Your task to perform on an android device: Open the map Image 0: 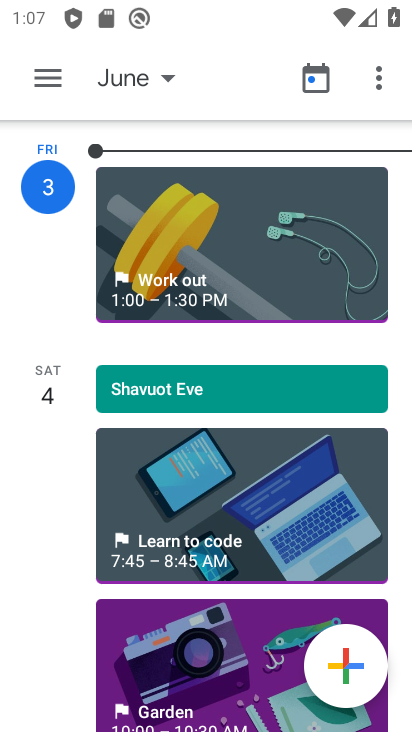
Step 0: press home button
Your task to perform on an android device: Open the map Image 1: 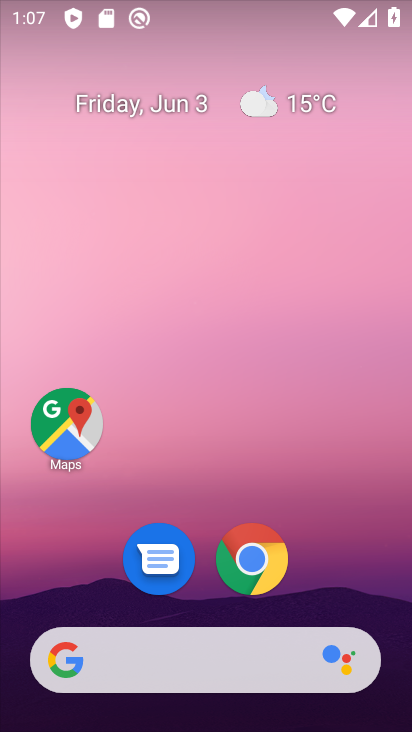
Step 1: click (55, 427)
Your task to perform on an android device: Open the map Image 2: 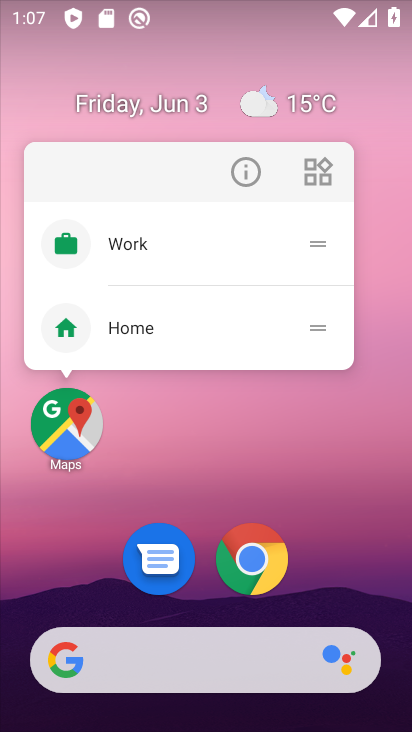
Step 2: click (89, 445)
Your task to perform on an android device: Open the map Image 3: 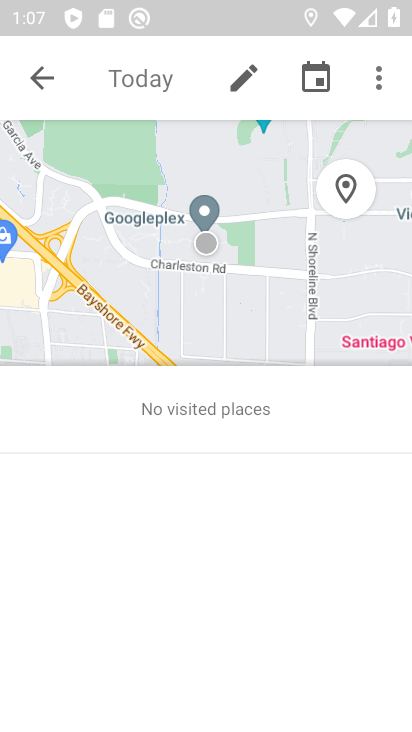
Step 3: task complete